Your task to perform on an android device: Do I have any events today? Image 0: 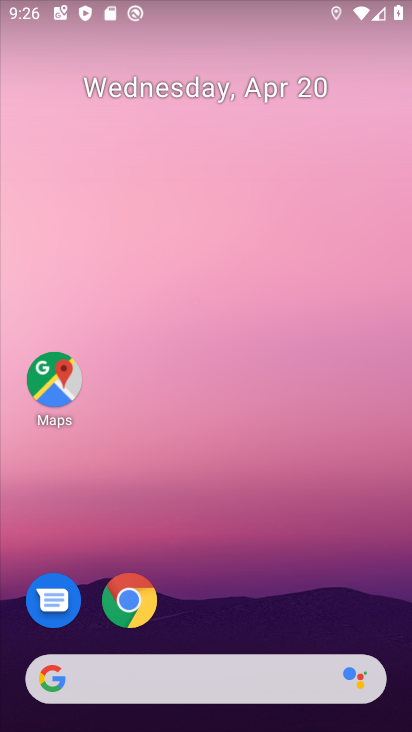
Step 0: drag from (215, 632) to (157, 77)
Your task to perform on an android device: Do I have any events today? Image 1: 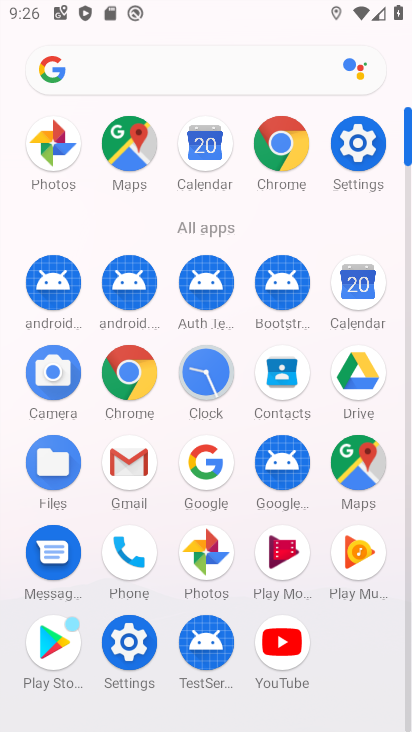
Step 1: click (352, 289)
Your task to perform on an android device: Do I have any events today? Image 2: 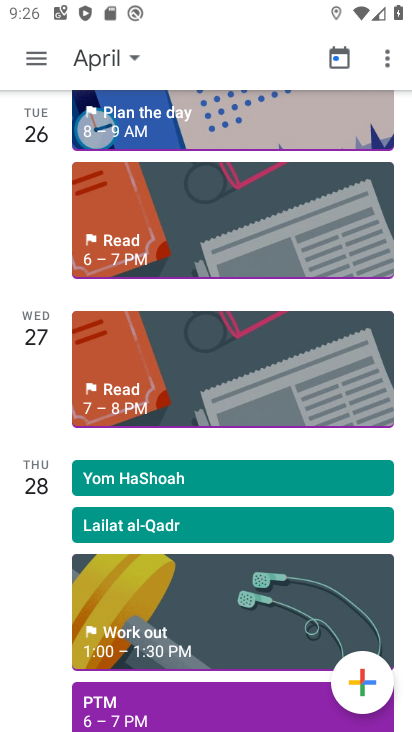
Step 2: click (26, 59)
Your task to perform on an android device: Do I have any events today? Image 3: 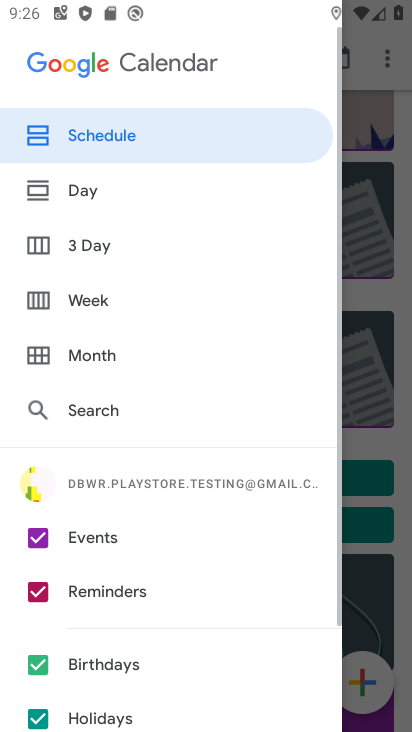
Step 3: click (76, 181)
Your task to perform on an android device: Do I have any events today? Image 4: 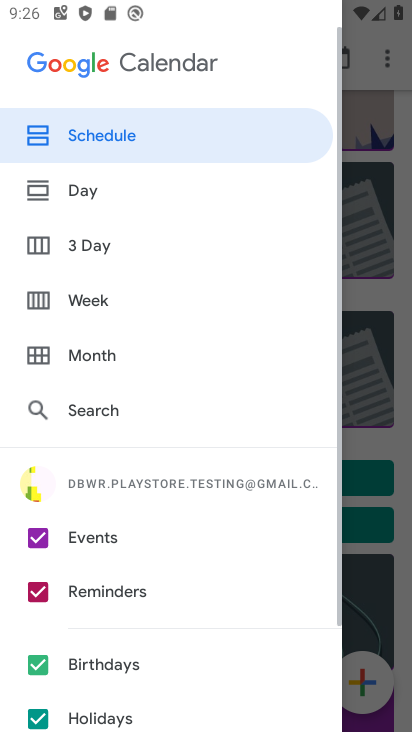
Step 4: click (101, 193)
Your task to perform on an android device: Do I have any events today? Image 5: 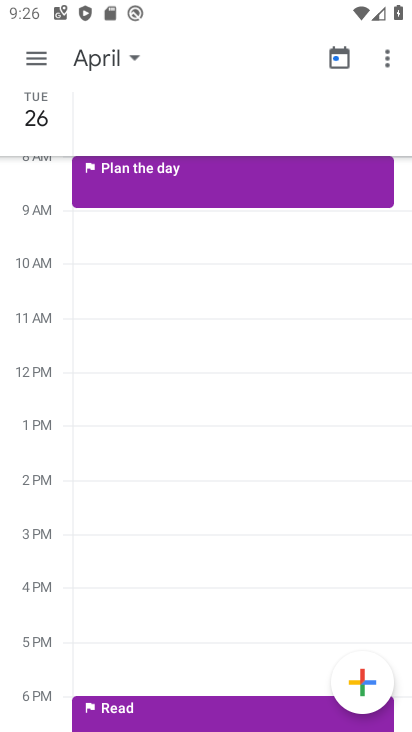
Step 5: click (337, 64)
Your task to perform on an android device: Do I have any events today? Image 6: 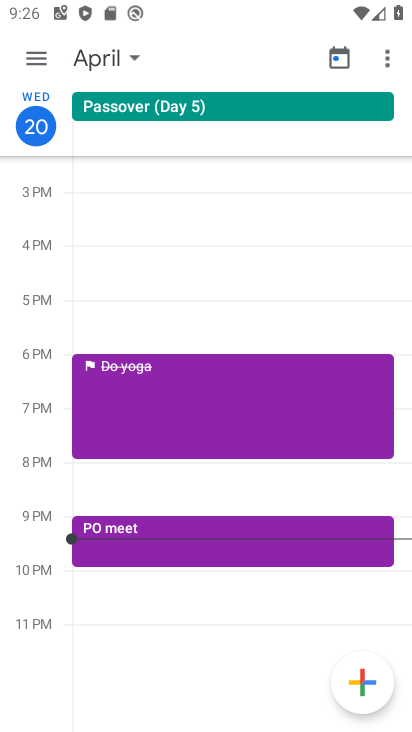
Step 6: task complete